Your task to perform on an android device: Search for razer deathadder on costco.com, select the first entry, add it to the cart, then select checkout. Image 0: 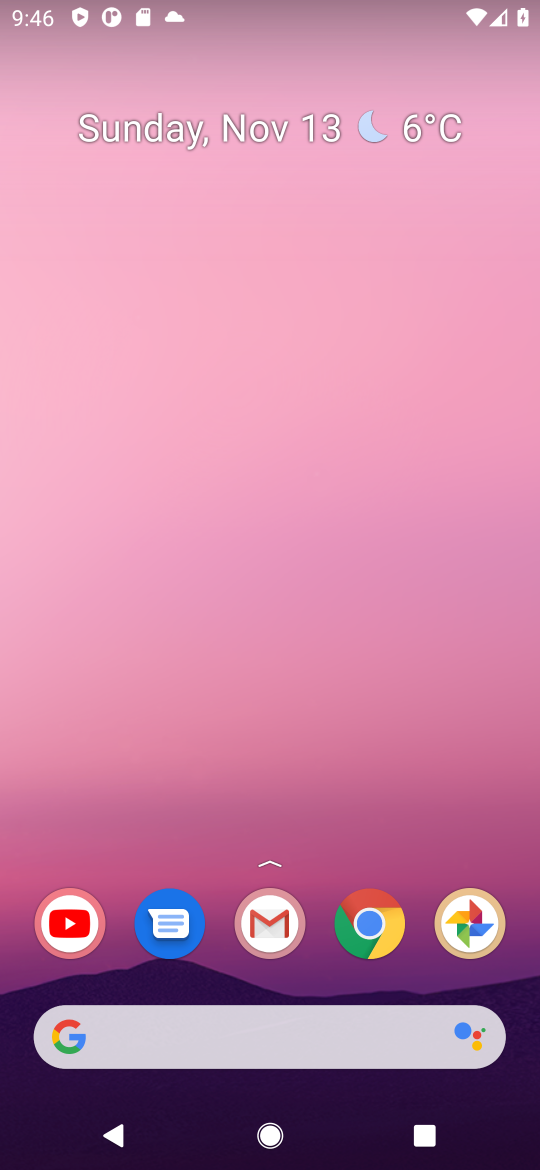
Step 0: click (368, 920)
Your task to perform on an android device: Search for razer deathadder on costco.com, select the first entry, add it to the cart, then select checkout. Image 1: 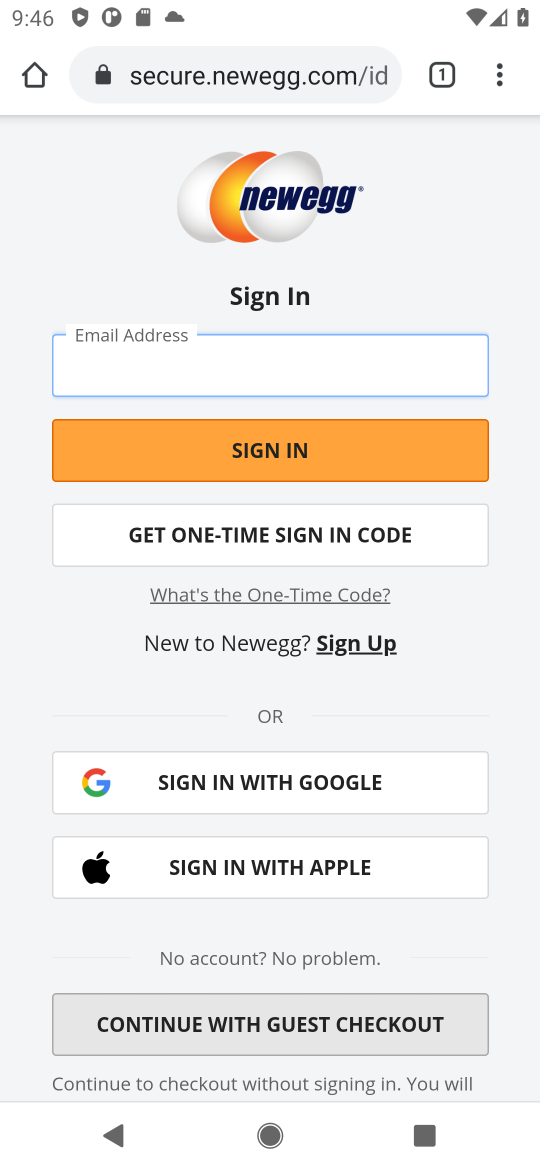
Step 1: click (309, 55)
Your task to perform on an android device: Search for razer deathadder on costco.com, select the first entry, add it to the cart, then select checkout. Image 2: 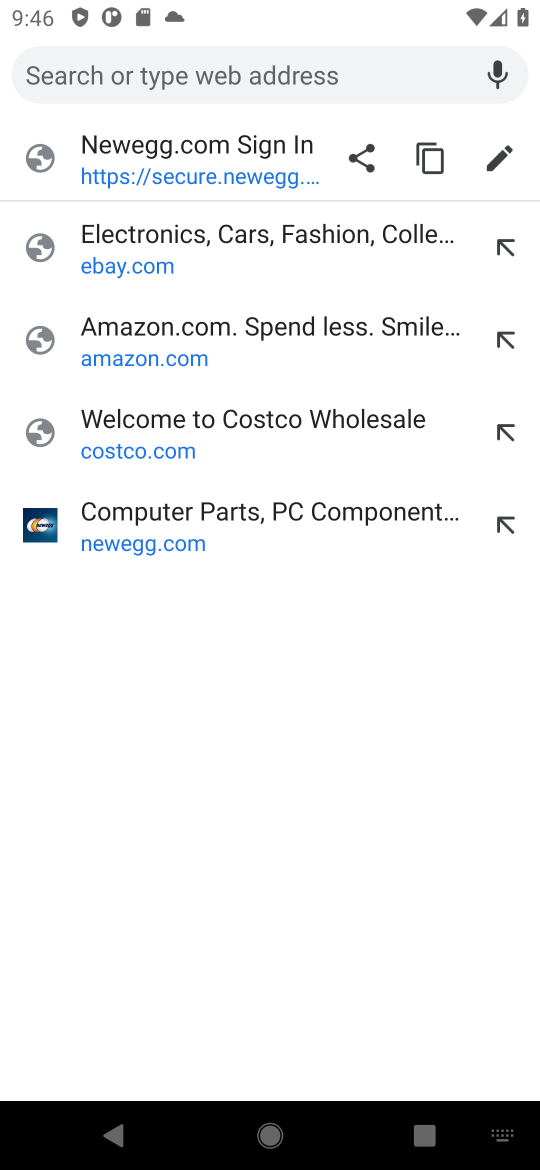
Step 2: click (307, 405)
Your task to perform on an android device: Search for razer deathadder on costco.com, select the first entry, add it to the cart, then select checkout. Image 3: 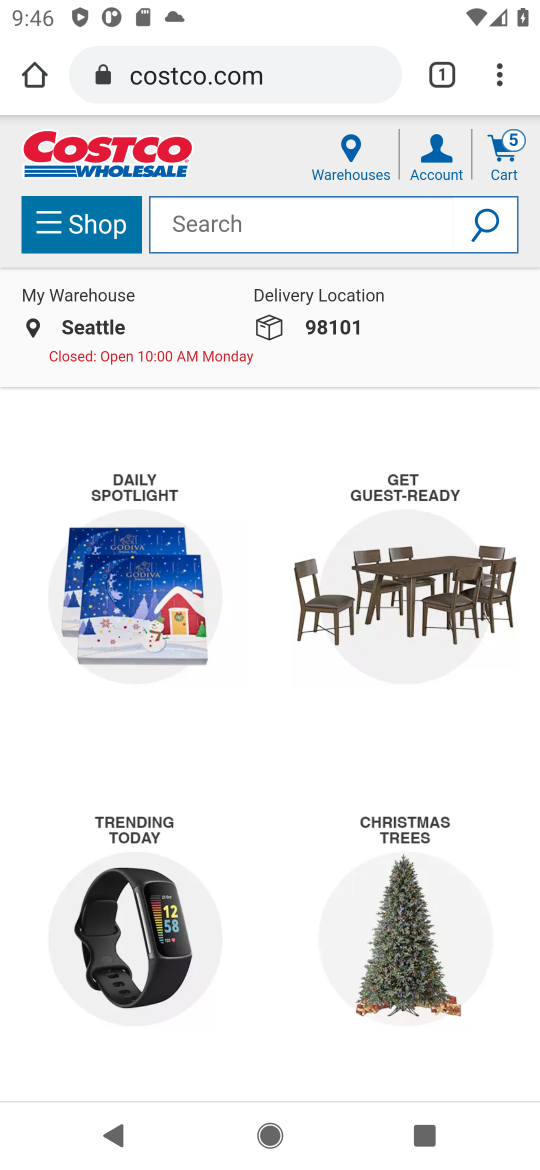
Step 3: click (371, 212)
Your task to perform on an android device: Search for razer deathadder on costco.com, select the first entry, add it to the cart, then select checkout. Image 4: 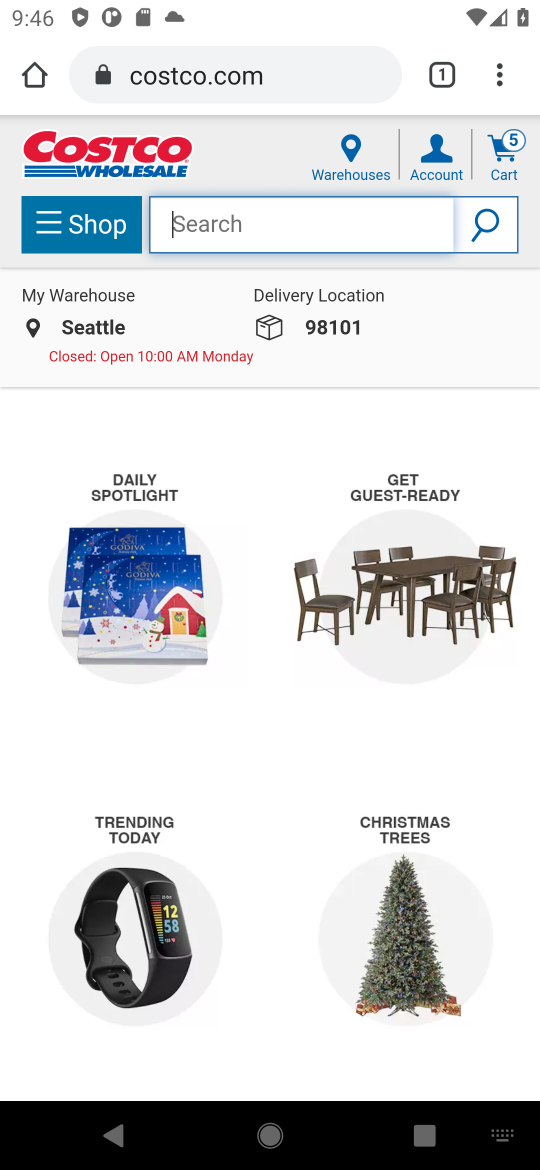
Step 4: press enter
Your task to perform on an android device: Search for razer deathadder on costco.com, select the first entry, add it to the cart, then select checkout. Image 5: 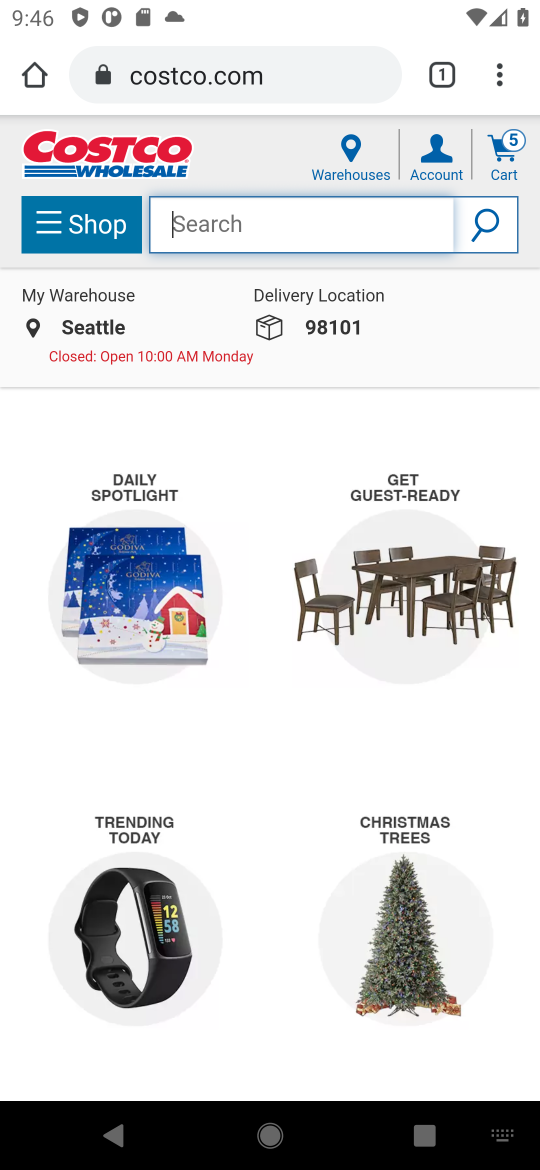
Step 5: type "razer deathadder"
Your task to perform on an android device: Search for razer deathadder on costco.com, select the first entry, add it to the cart, then select checkout. Image 6: 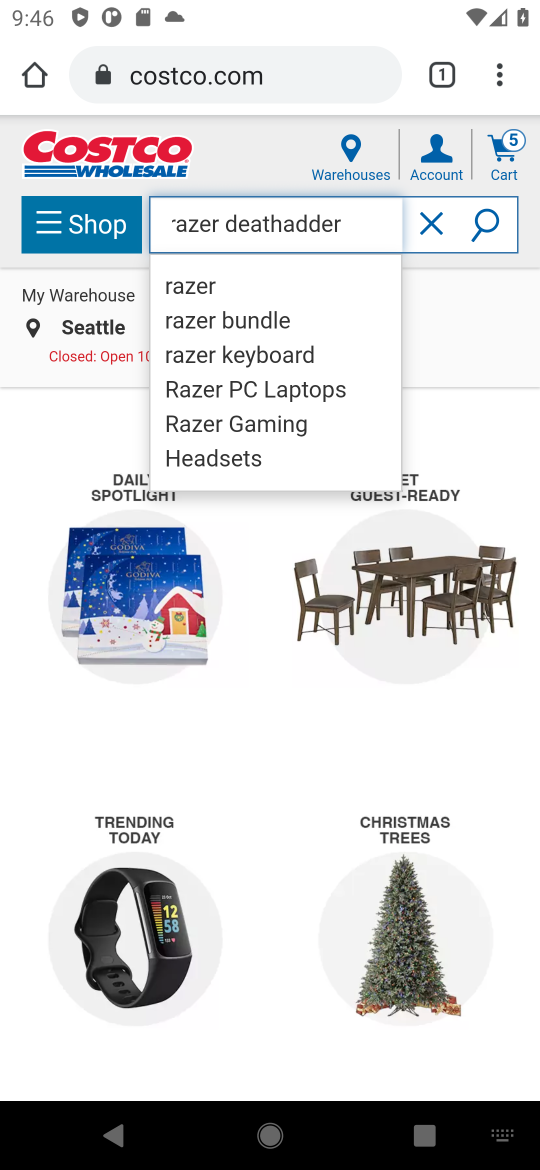
Step 6: click (493, 314)
Your task to perform on an android device: Search for razer deathadder on costco.com, select the first entry, add it to the cart, then select checkout. Image 7: 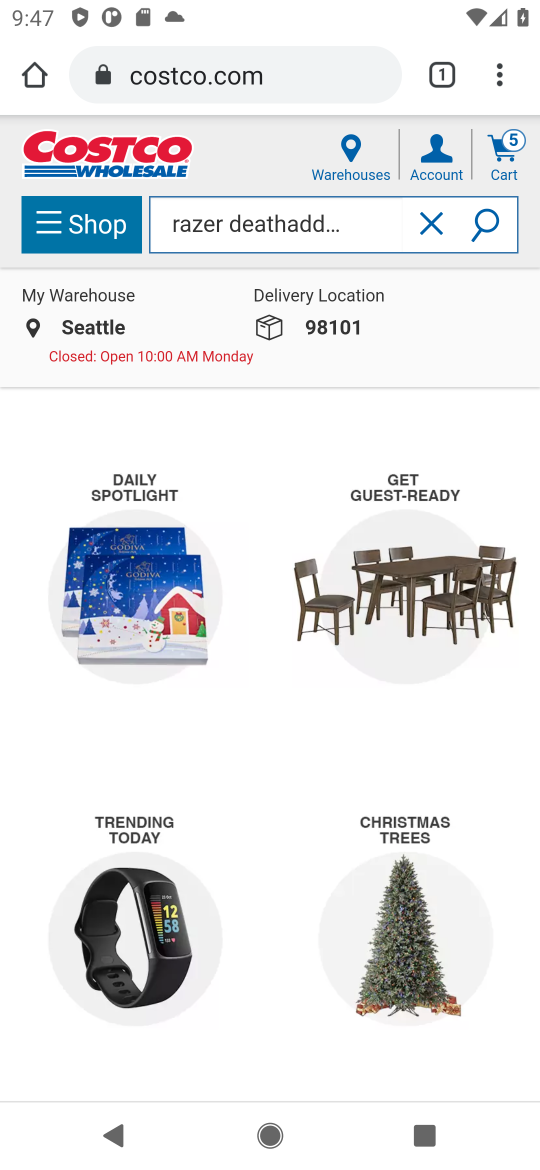
Step 7: click (491, 219)
Your task to perform on an android device: Search for razer deathadder on costco.com, select the first entry, add it to the cart, then select checkout. Image 8: 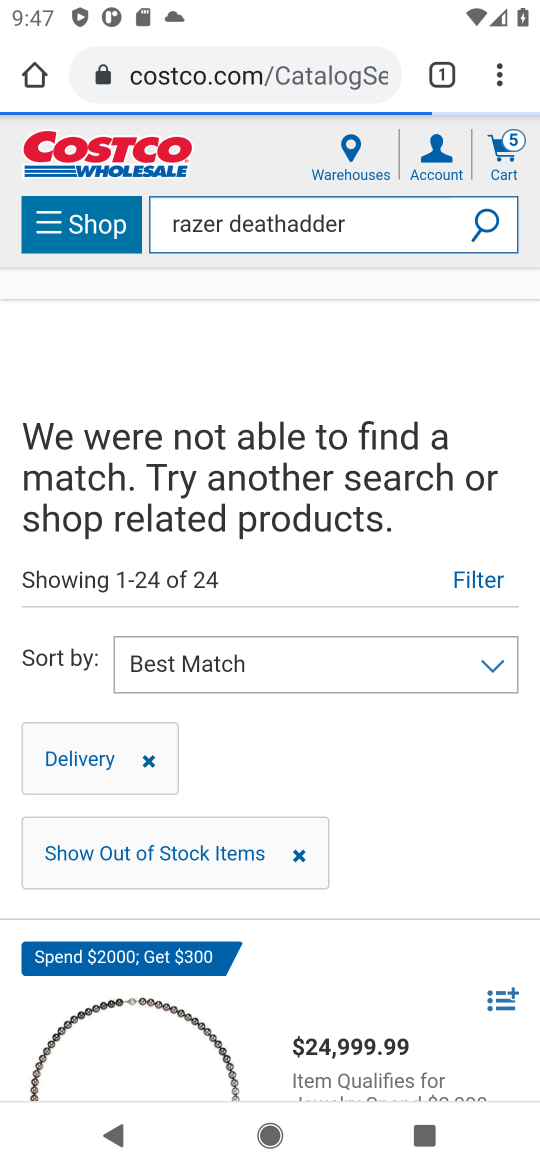
Step 8: task complete